Your task to perform on an android device: Open Google Maps and go to "Timeline" Image 0: 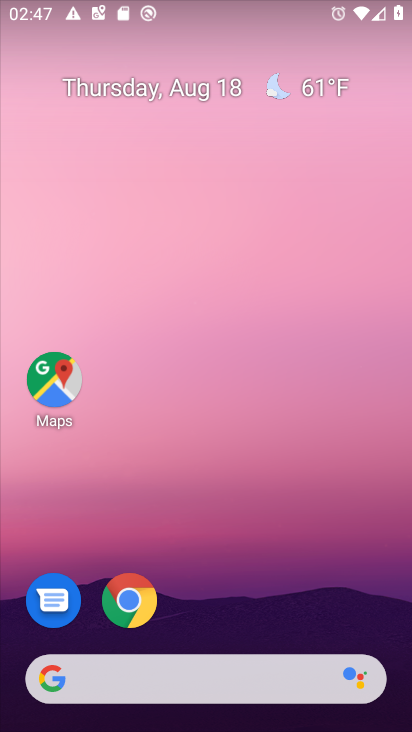
Step 0: press home button
Your task to perform on an android device: Open Google Maps and go to "Timeline" Image 1: 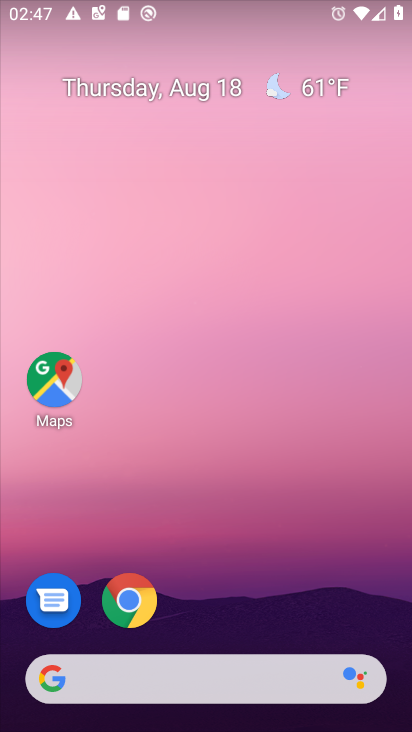
Step 1: drag from (216, 621) to (277, 0)
Your task to perform on an android device: Open Google Maps and go to "Timeline" Image 2: 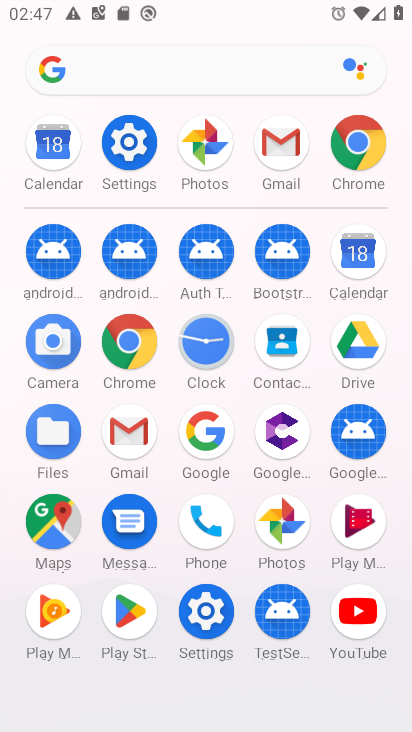
Step 2: click (55, 533)
Your task to perform on an android device: Open Google Maps and go to "Timeline" Image 3: 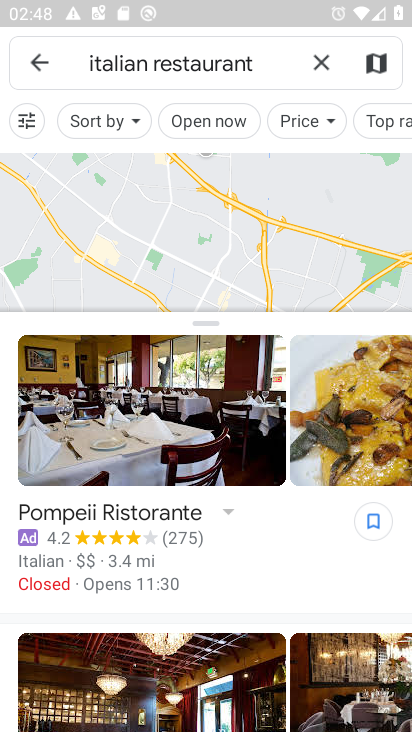
Step 3: click (319, 68)
Your task to perform on an android device: Open Google Maps and go to "Timeline" Image 4: 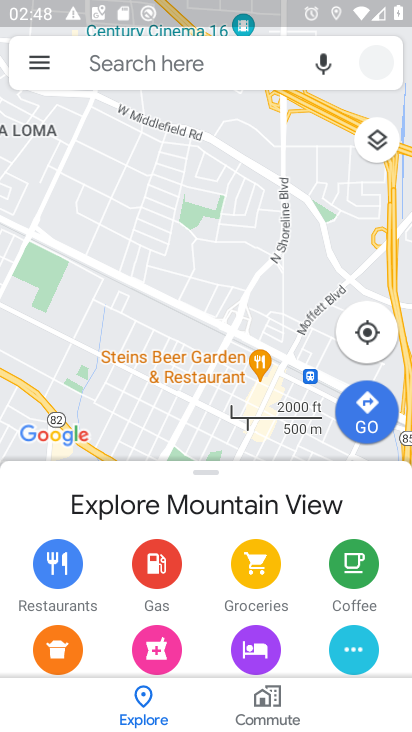
Step 4: click (29, 65)
Your task to perform on an android device: Open Google Maps and go to "Timeline" Image 5: 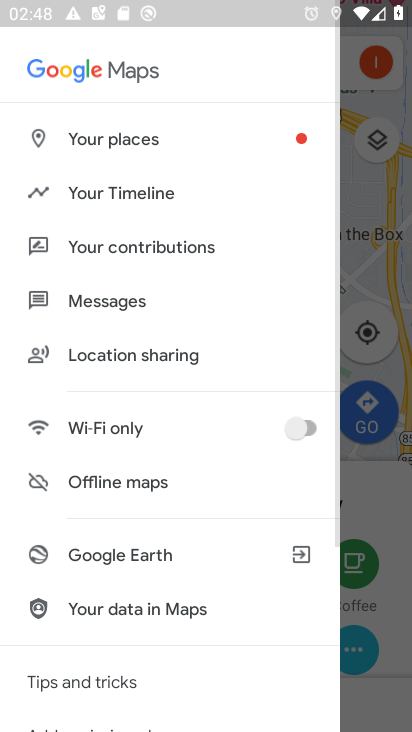
Step 5: click (103, 191)
Your task to perform on an android device: Open Google Maps and go to "Timeline" Image 6: 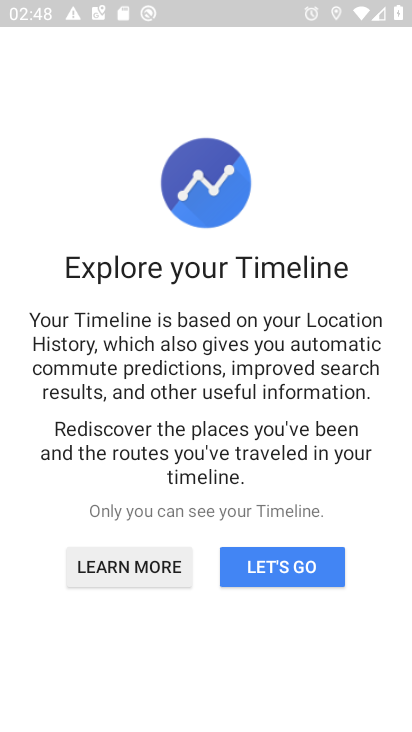
Step 6: click (289, 568)
Your task to perform on an android device: Open Google Maps and go to "Timeline" Image 7: 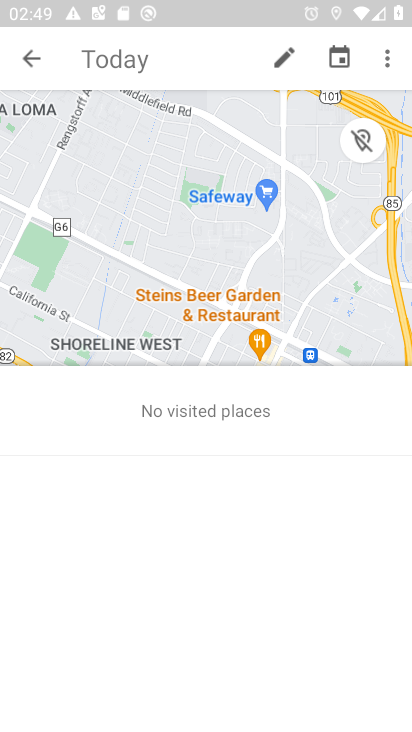
Step 7: task complete